Your task to perform on an android device: Open maps Image 0: 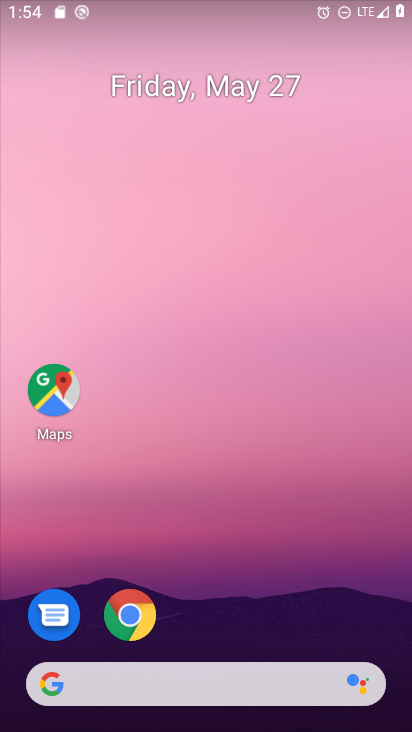
Step 0: drag from (292, 596) to (263, 66)
Your task to perform on an android device: Open maps Image 1: 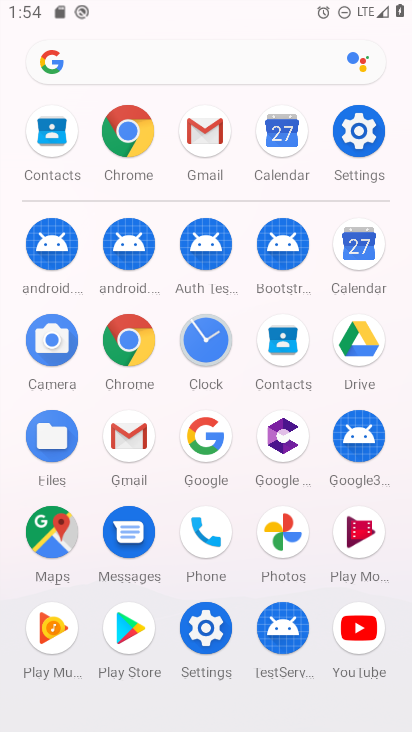
Step 1: click (44, 518)
Your task to perform on an android device: Open maps Image 2: 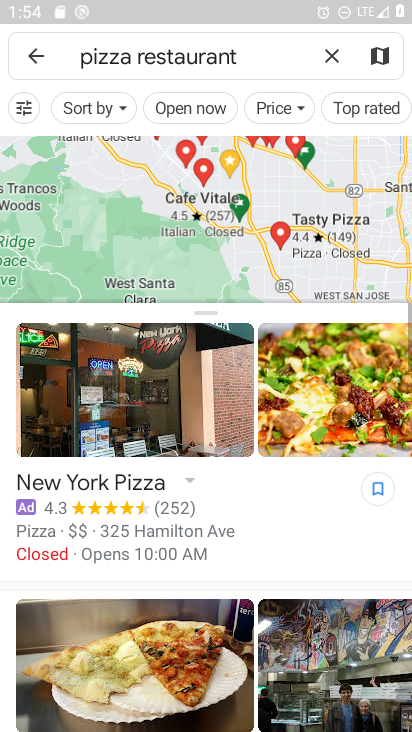
Step 2: task complete